Your task to perform on an android device: turn on translation in the chrome app Image 0: 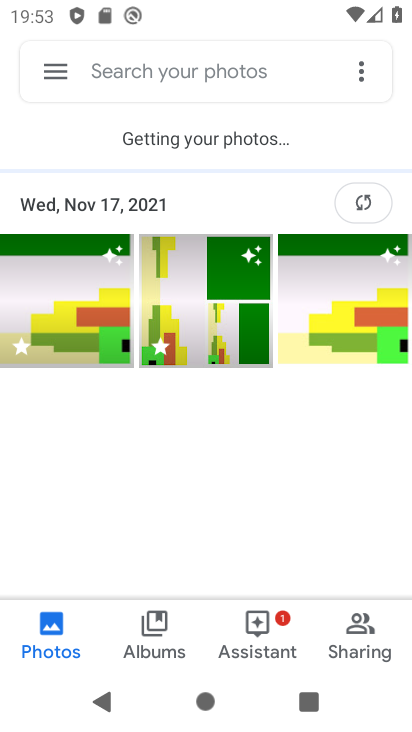
Step 0: press home button
Your task to perform on an android device: turn on translation in the chrome app Image 1: 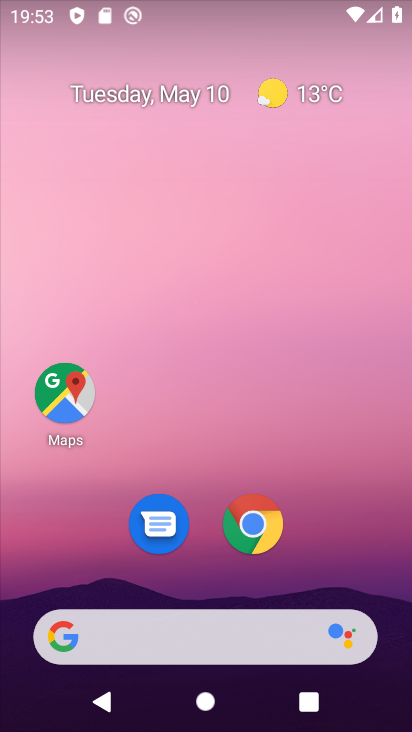
Step 1: click (261, 528)
Your task to perform on an android device: turn on translation in the chrome app Image 2: 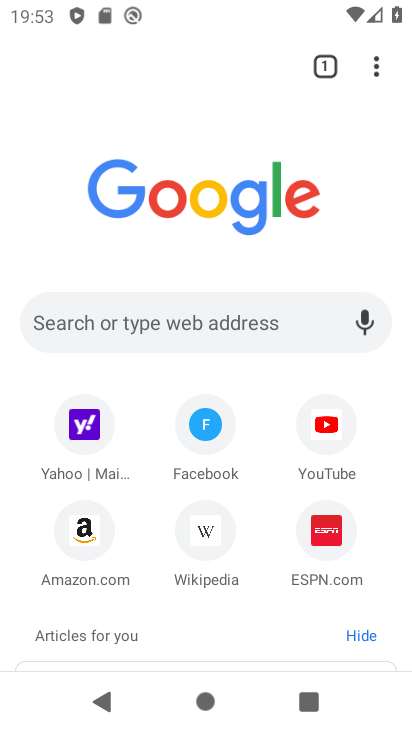
Step 2: click (376, 65)
Your task to perform on an android device: turn on translation in the chrome app Image 3: 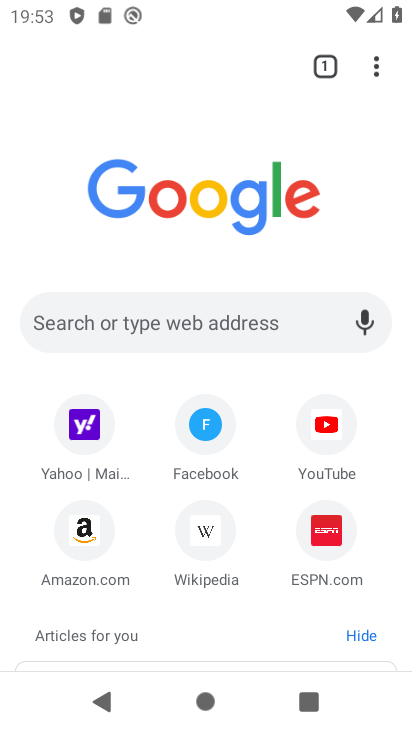
Step 3: click (376, 67)
Your task to perform on an android device: turn on translation in the chrome app Image 4: 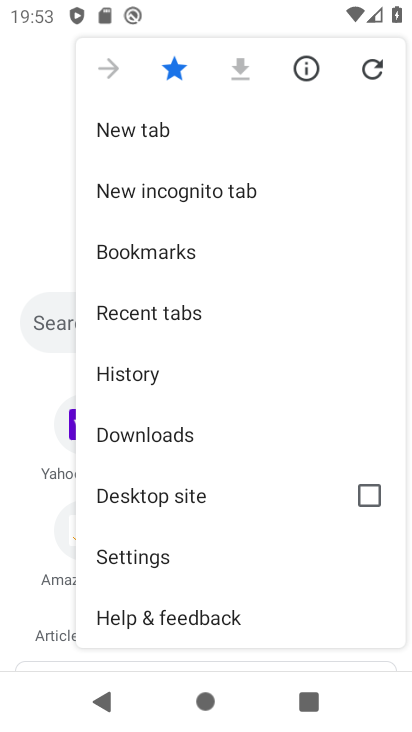
Step 4: click (172, 551)
Your task to perform on an android device: turn on translation in the chrome app Image 5: 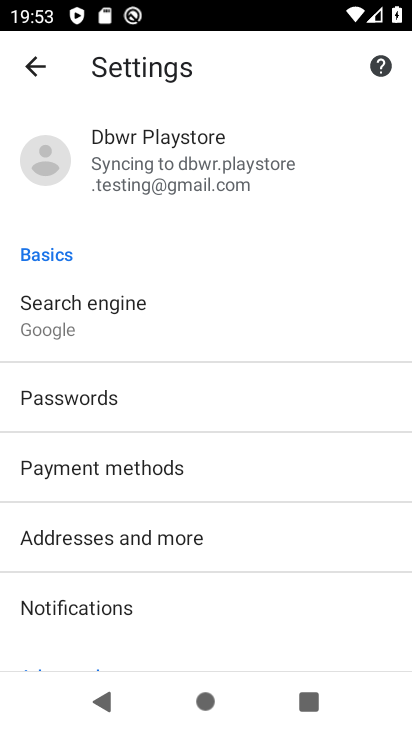
Step 5: drag from (172, 551) to (174, 148)
Your task to perform on an android device: turn on translation in the chrome app Image 6: 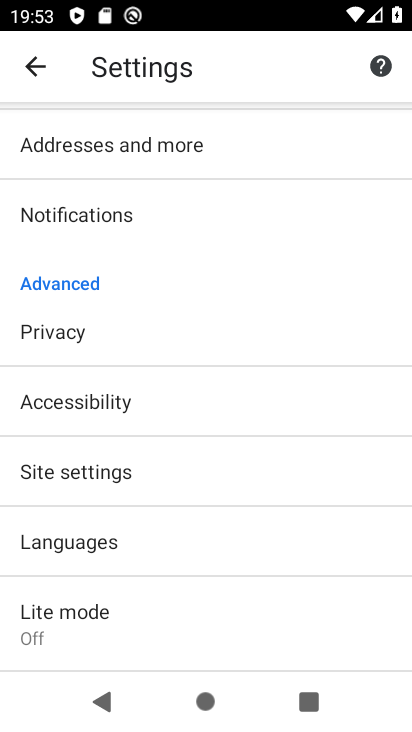
Step 6: click (204, 540)
Your task to perform on an android device: turn on translation in the chrome app Image 7: 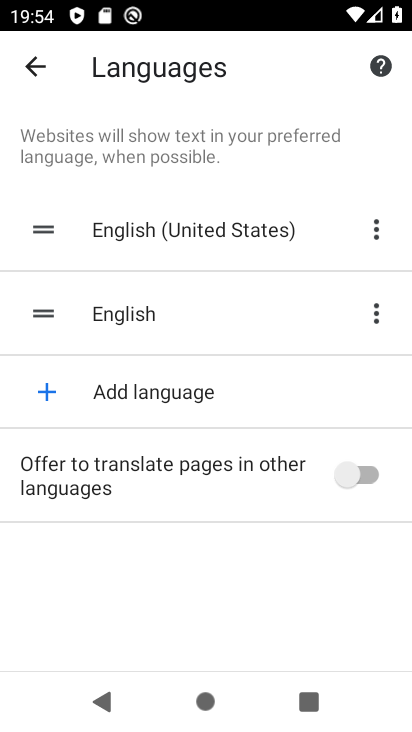
Step 7: click (367, 472)
Your task to perform on an android device: turn on translation in the chrome app Image 8: 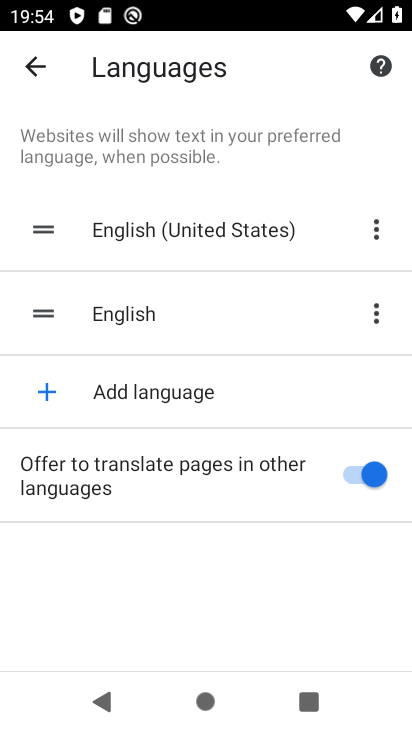
Step 8: task complete